Your task to perform on an android device: open app "Nova Launcher" (install if not already installed) Image 0: 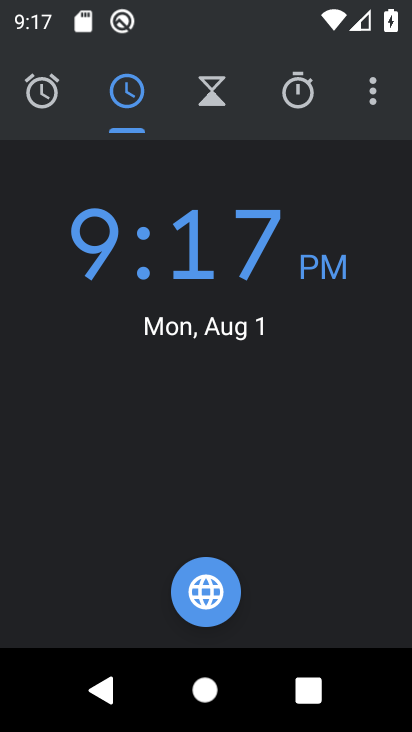
Step 0: press home button
Your task to perform on an android device: open app "Nova Launcher" (install if not already installed) Image 1: 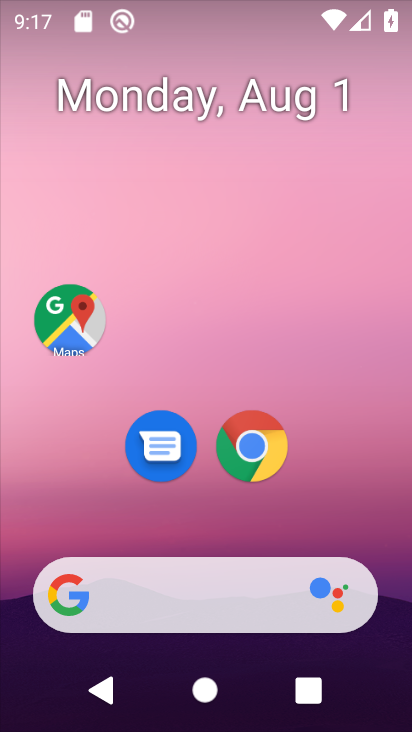
Step 1: drag from (193, 513) to (196, 150)
Your task to perform on an android device: open app "Nova Launcher" (install if not already installed) Image 2: 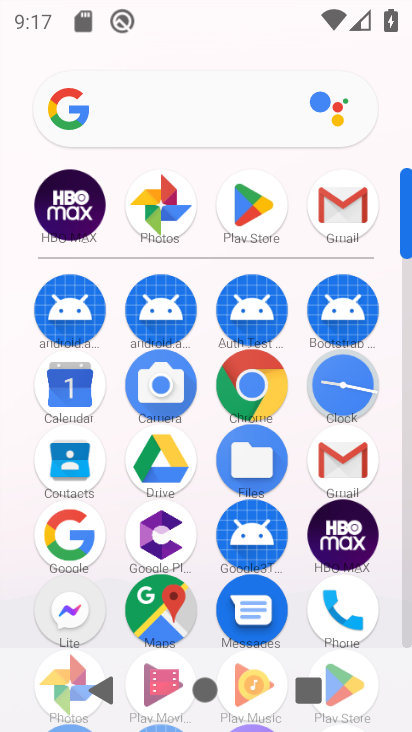
Step 2: click (261, 217)
Your task to perform on an android device: open app "Nova Launcher" (install if not already installed) Image 3: 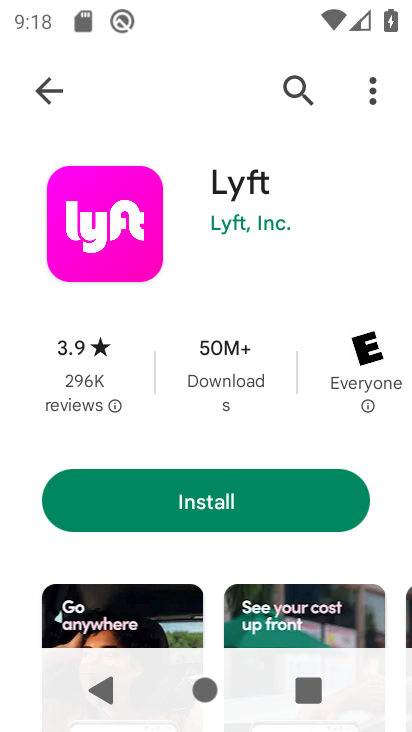
Step 3: click (291, 93)
Your task to perform on an android device: open app "Nova Launcher" (install if not already installed) Image 4: 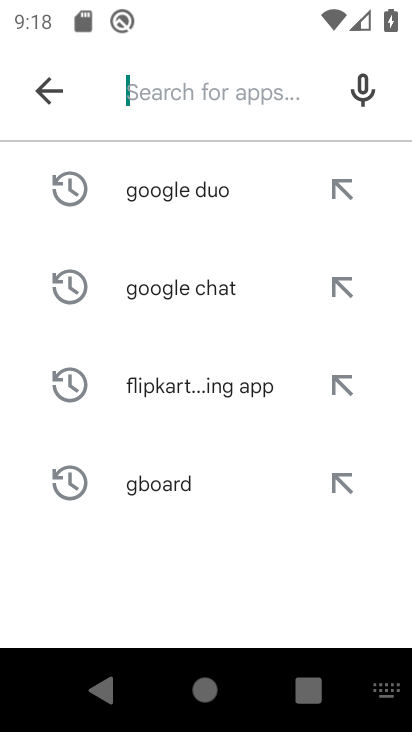
Step 4: type "Nova Launcher"
Your task to perform on an android device: open app "Nova Launcher" (install if not already installed) Image 5: 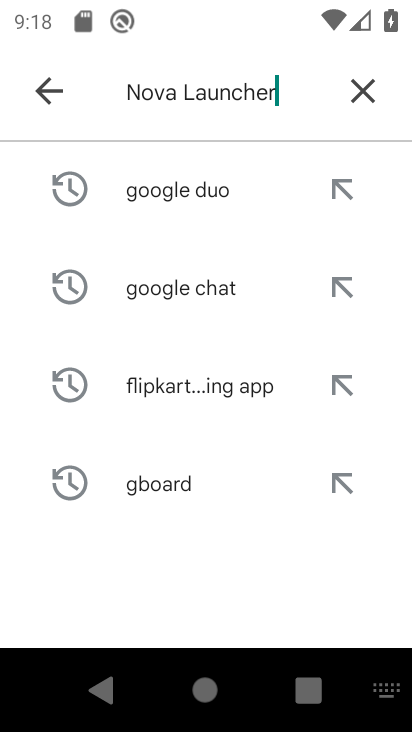
Step 5: type ""
Your task to perform on an android device: open app "Nova Launcher" (install if not already installed) Image 6: 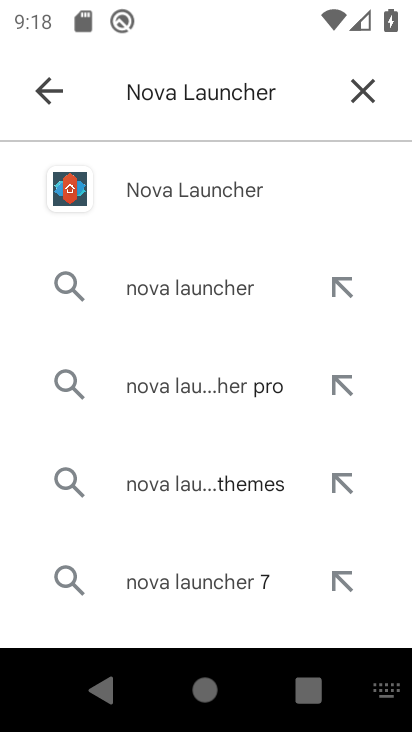
Step 6: click (183, 190)
Your task to perform on an android device: open app "Nova Launcher" (install if not already installed) Image 7: 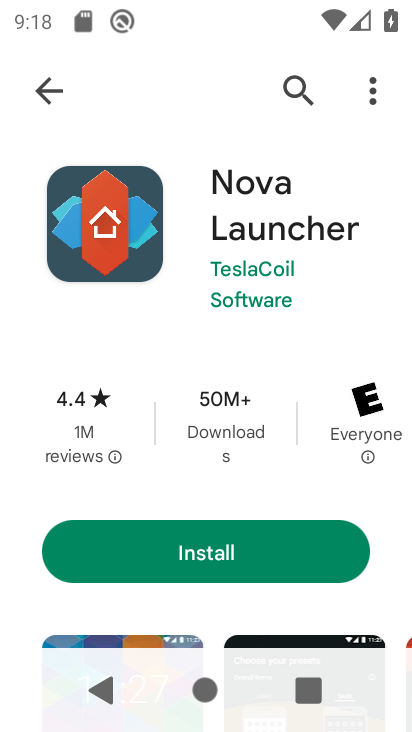
Step 7: click (203, 555)
Your task to perform on an android device: open app "Nova Launcher" (install if not already installed) Image 8: 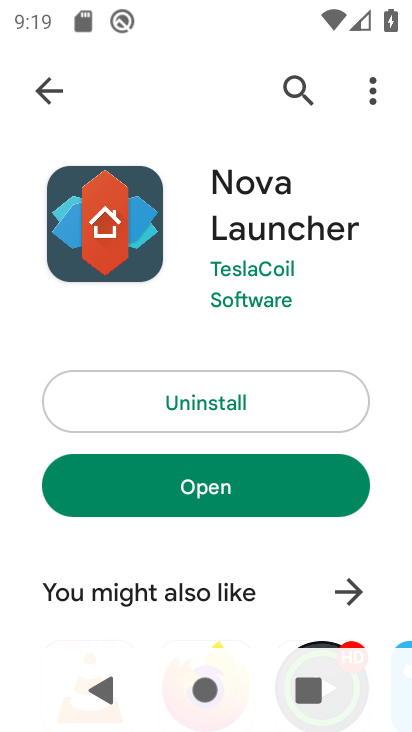
Step 8: click (223, 461)
Your task to perform on an android device: open app "Nova Launcher" (install if not already installed) Image 9: 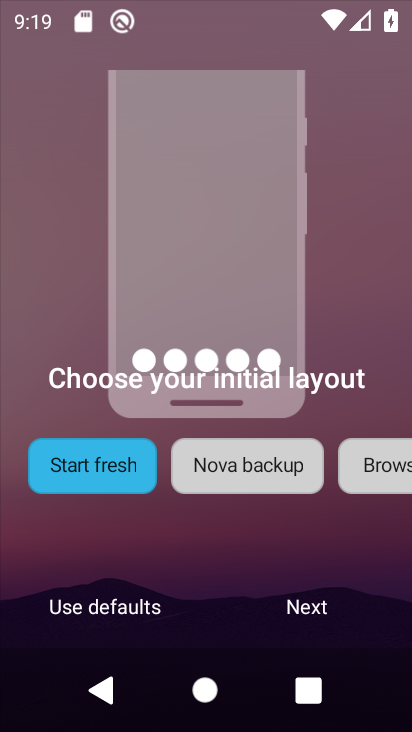
Step 9: task complete